Your task to perform on an android device: visit the assistant section in the google photos Image 0: 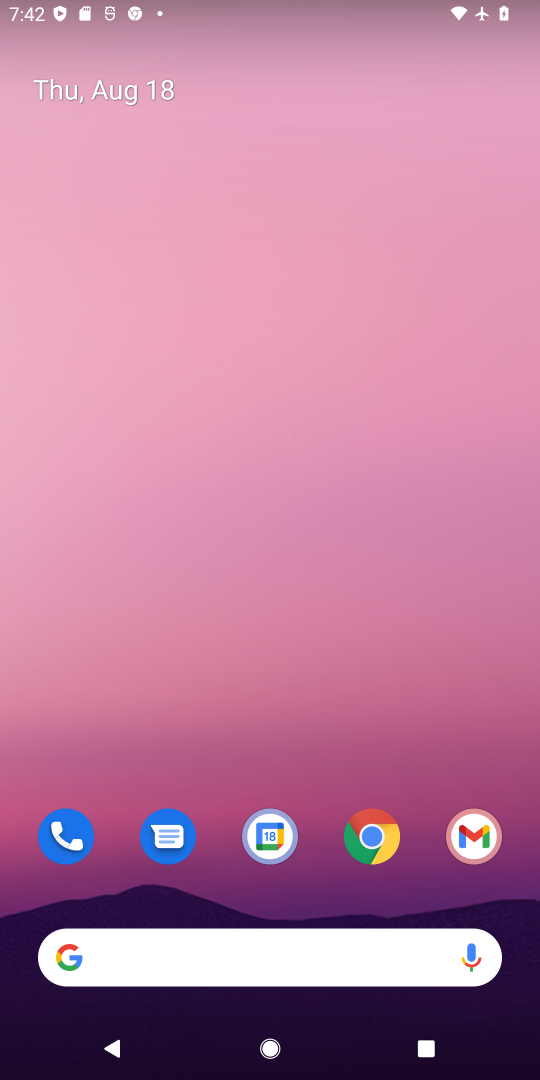
Step 0: drag from (368, 664) to (356, 15)
Your task to perform on an android device: visit the assistant section in the google photos Image 1: 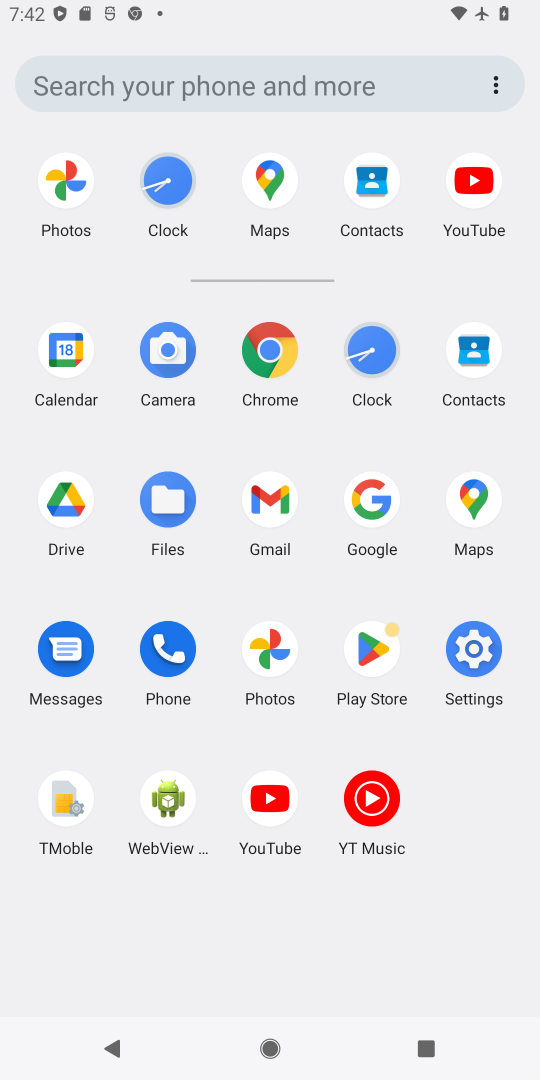
Step 1: click (278, 652)
Your task to perform on an android device: visit the assistant section in the google photos Image 2: 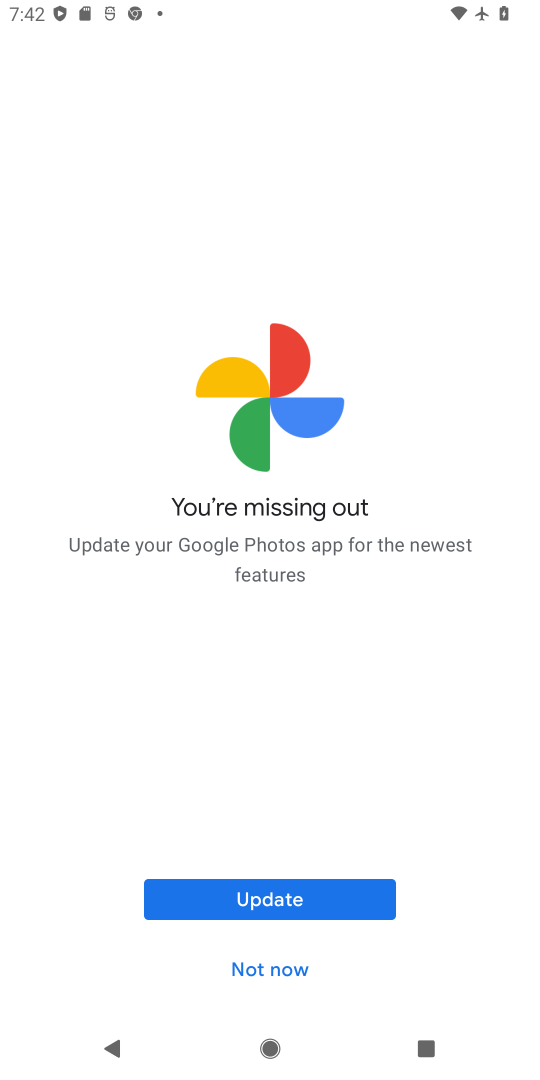
Step 2: click (244, 973)
Your task to perform on an android device: visit the assistant section in the google photos Image 3: 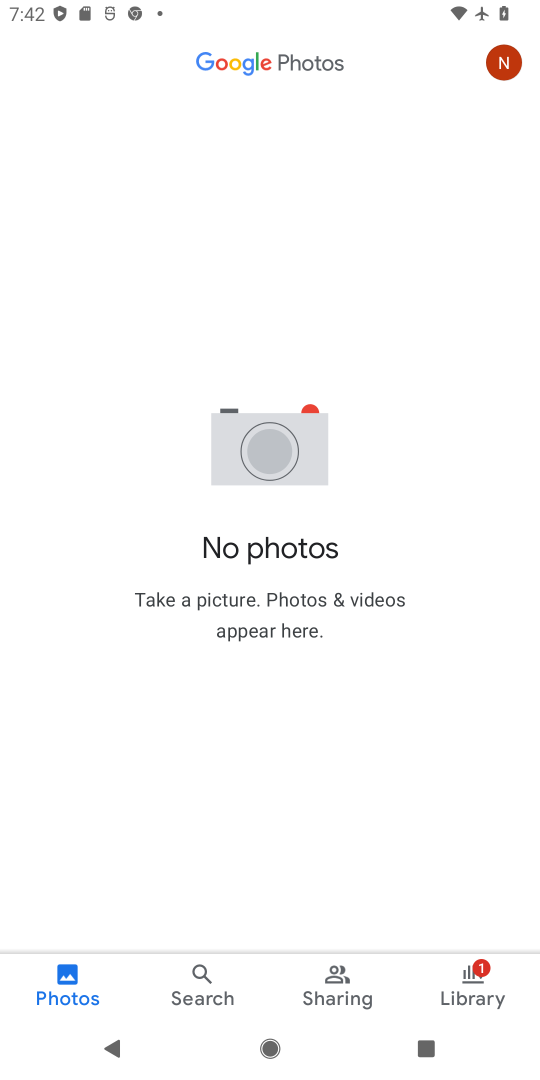
Step 3: click (493, 955)
Your task to perform on an android device: visit the assistant section in the google photos Image 4: 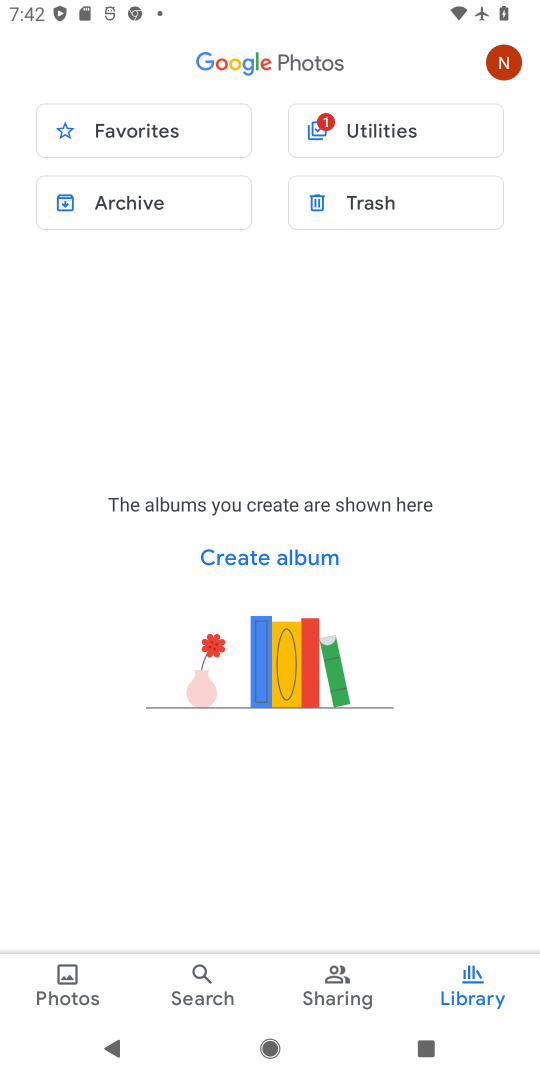
Step 4: task complete